Your task to perform on an android device: turn off location history Image 0: 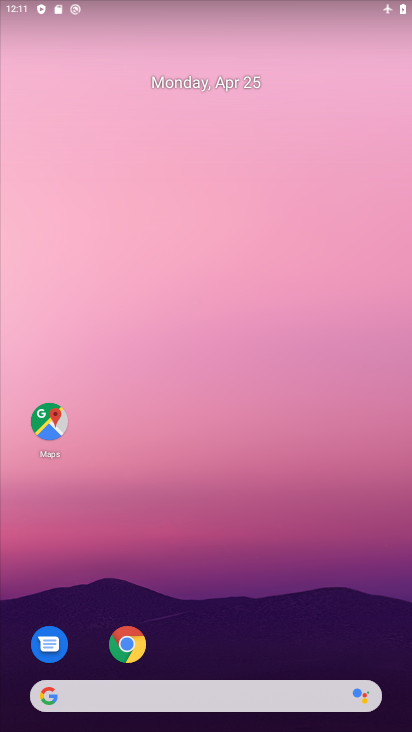
Step 0: drag from (267, 662) to (264, 26)
Your task to perform on an android device: turn off location history Image 1: 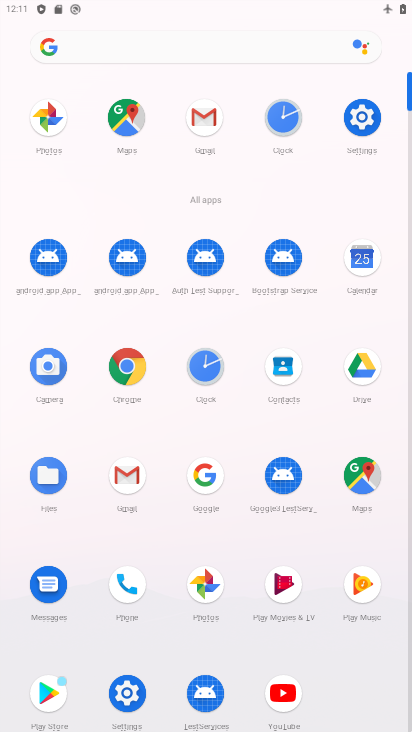
Step 1: click (357, 120)
Your task to perform on an android device: turn off location history Image 2: 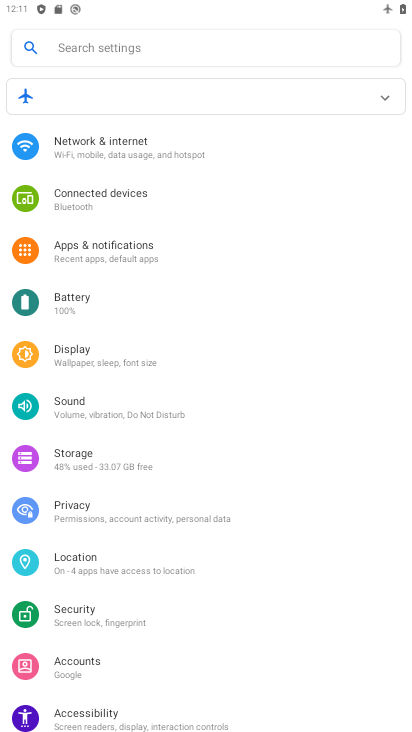
Step 2: click (143, 554)
Your task to perform on an android device: turn off location history Image 3: 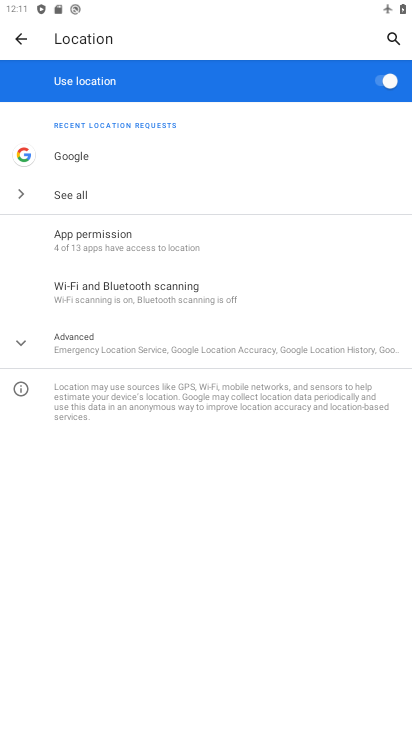
Step 3: click (207, 353)
Your task to perform on an android device: turn off location history Image 4: 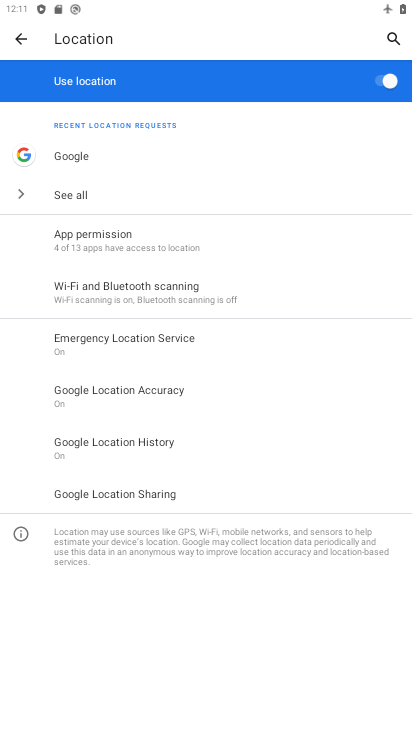
Step 4: click (238, 443)
Your task to perform on an android device: turn off location history Image 5: 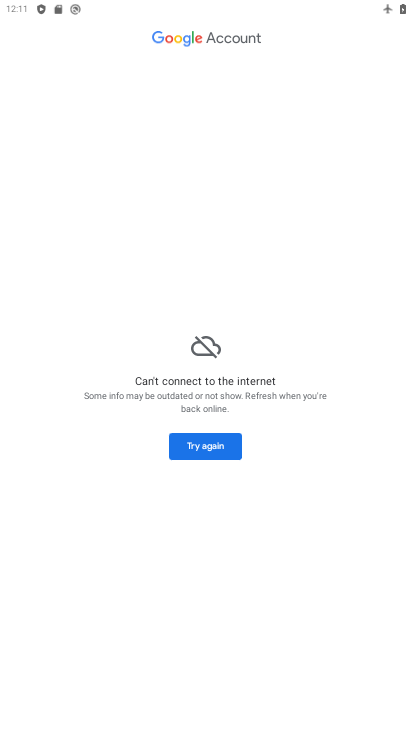
Step 5: task complete